Your task to perform on an android device: turn on data saver in the chrome app Image 0: 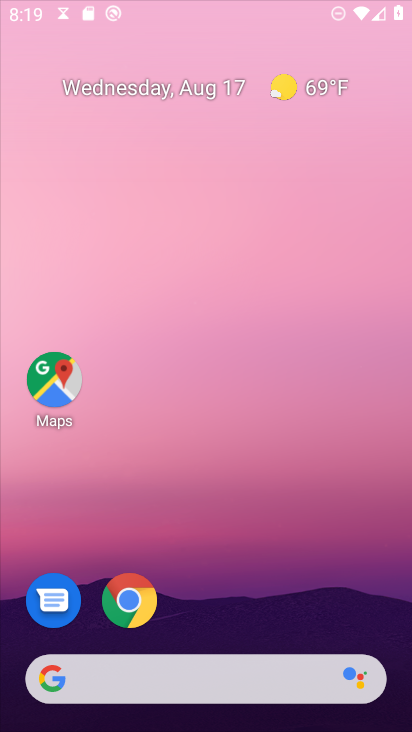
Step 0: press home button
Your task to perform on an android device: turn on data saver in the chrome app Image 1: 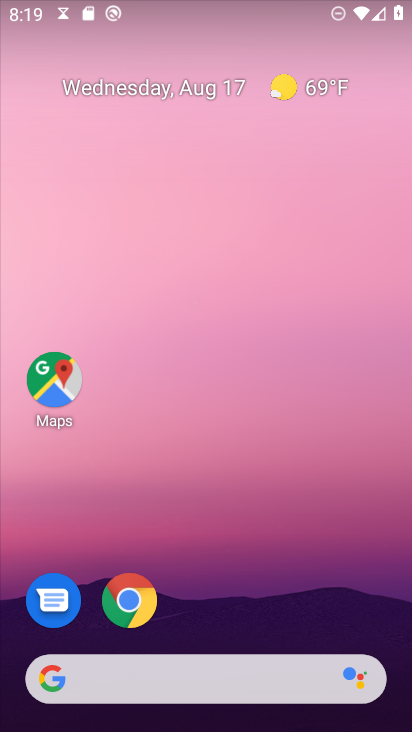
Step 1: click (143, 587)
Your task to perform on an android device: turn on data saver in the chrome app Image 2: 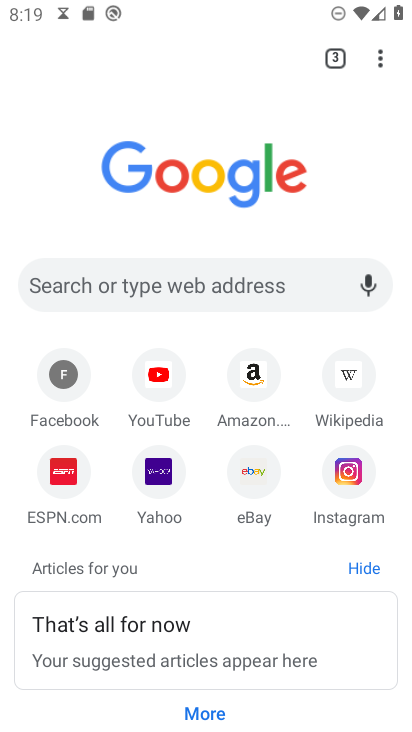
Step 2: drag from (379, 60) to (191, 491)
Your task to perform on an android device: turn on data saver in the chrome app Image 3: 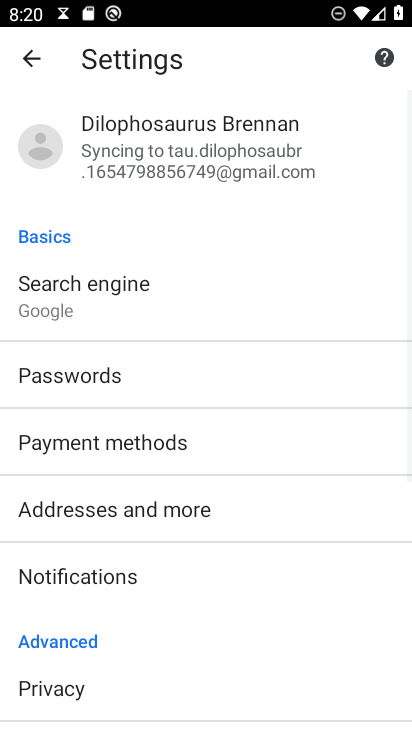
Step 3: drag from (182, 659) to (144, 198)
Your task to perform on an android device: turn on data saver in the chrome app Image 4: 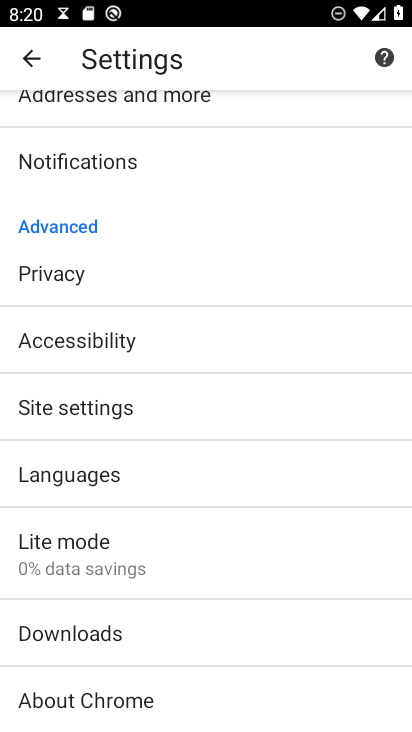
Step 4: click (159, 556)
Your task to perform on an android device: turn on data saver in the chrome app Image 5: 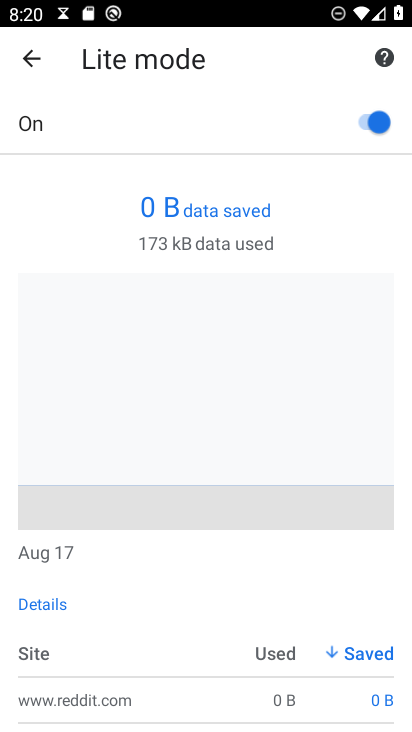
Step 5: task complete